Your task to perform on an android device: Open calendar and show me the third week of next month Image 0: 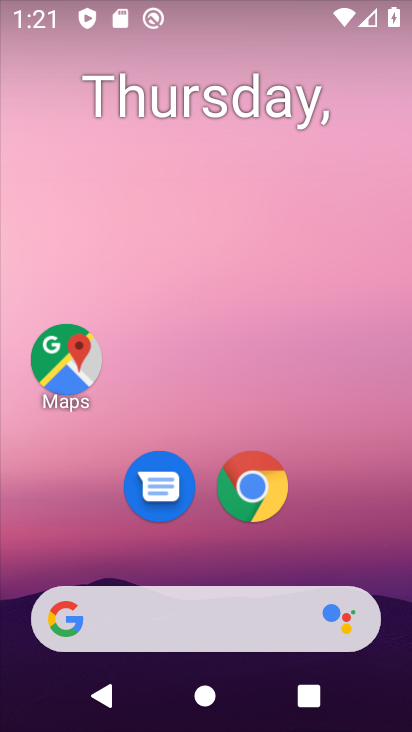
Step 0: drag from (386, 539) to (302, 113)
Your task to perform on an android device: Open calendar and show me the third week of next month Image 1: 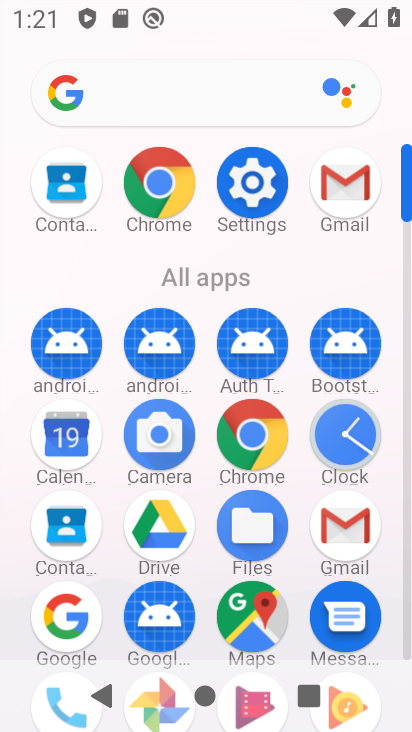
Step 1: click (72, 438)
Your task to perform on an android device: Open calendar and show me the third week of next month Image 2: 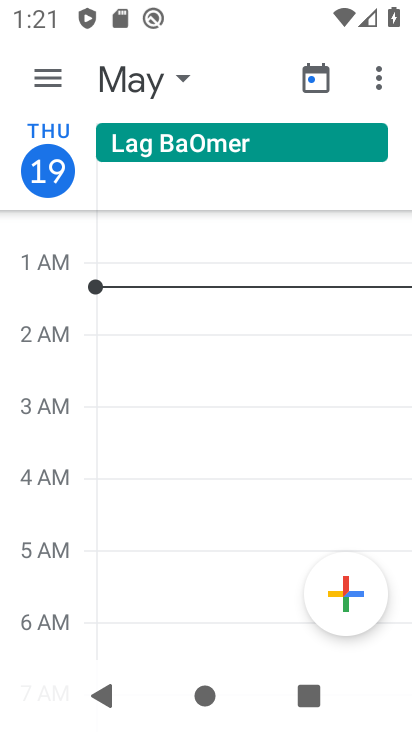
Step 2: click (51, 68)
Your task to perform on an android device: Open calendar and show me the third week of next month Image 3: 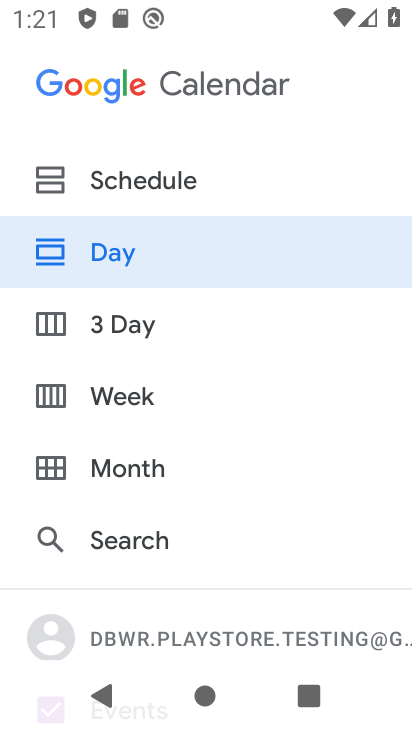
Step 3: click (130, 397)
Your task to perform on an android device: Open calendar and show me the third week of next month Image 4: 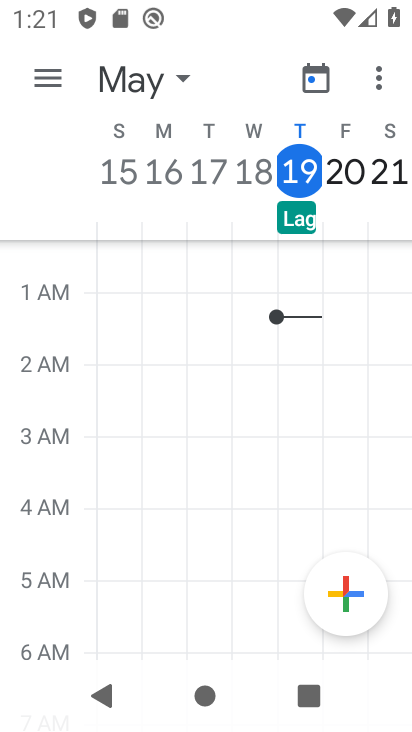
Step 4: click (169, 76)
Your task to perform on an android device: Open calendar and show me the third week of next month Image 5: 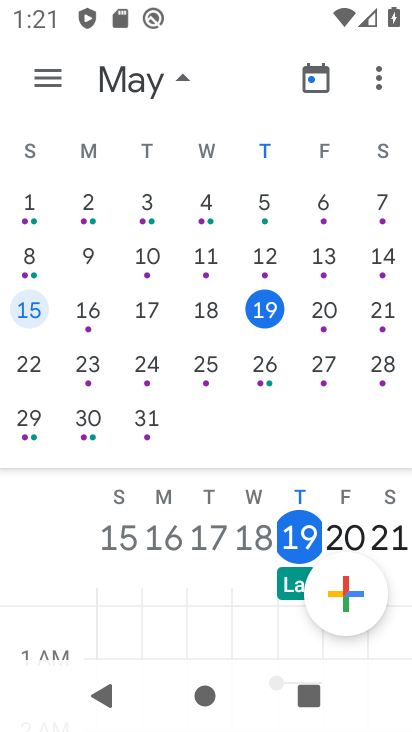
Step 5: drag from (395, 296) to (13, 320)
Your task to perform on an android device: Open calendar and show me the third week of next month Image 6: 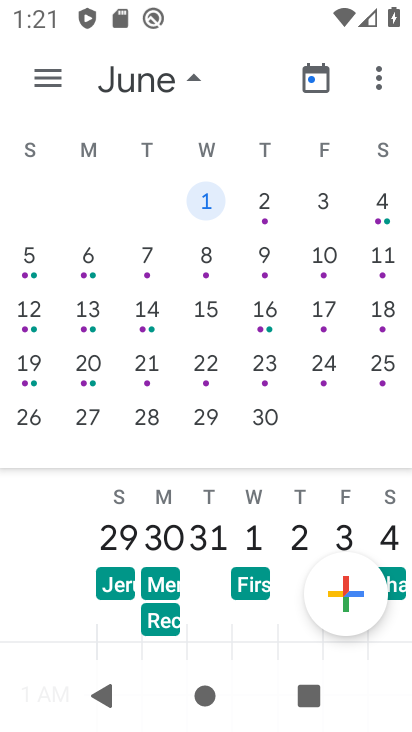
Step 6: click (141, 324)
Your task to perform on an android device: Open calendar and show me the third week of next month Image 7: 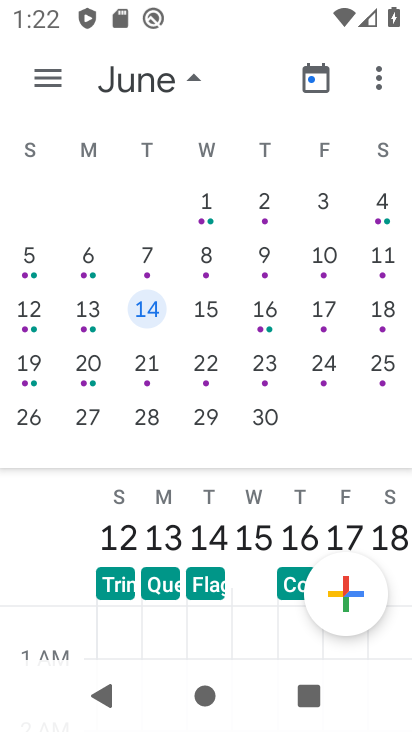
Step 7: task complete